Your task to perform on an android device: Open Youtube and go to the subscriptions tab Image 0: 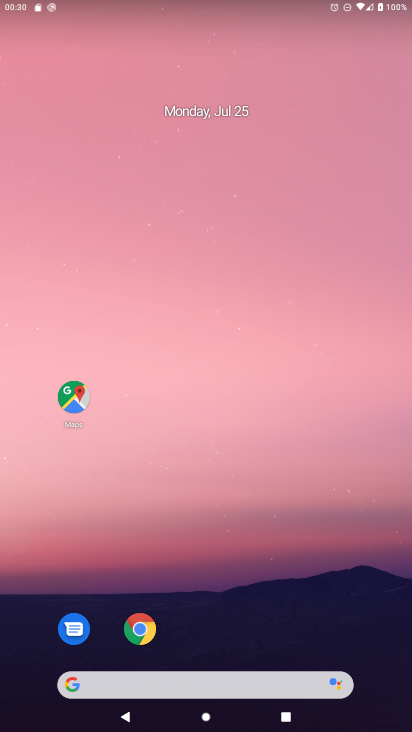
Step 0: drag from (174, 640) to (187, 18)
Your task to perform on an android device: Open Youtube and go to the subscriptions tab Image 1: 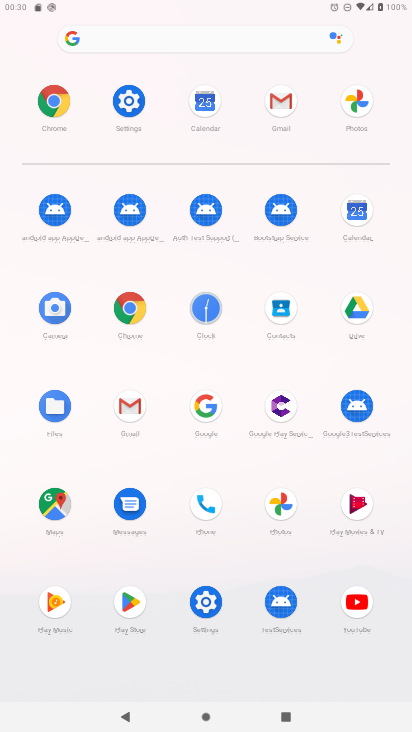
Step 1: click (347, 609)
Your task to perform on an android device: Open Youtube and go to the subscriptions tab Image 2: 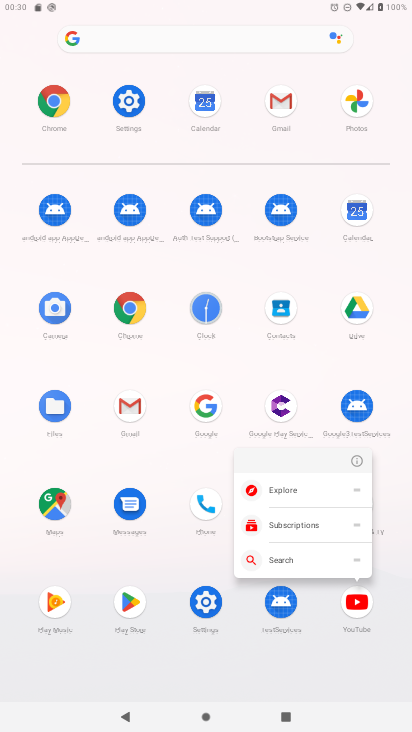
Step 2: click (360, 460)
Your task to perform on an android device: Open Youtube and go to the subscriptions tab Image 3: 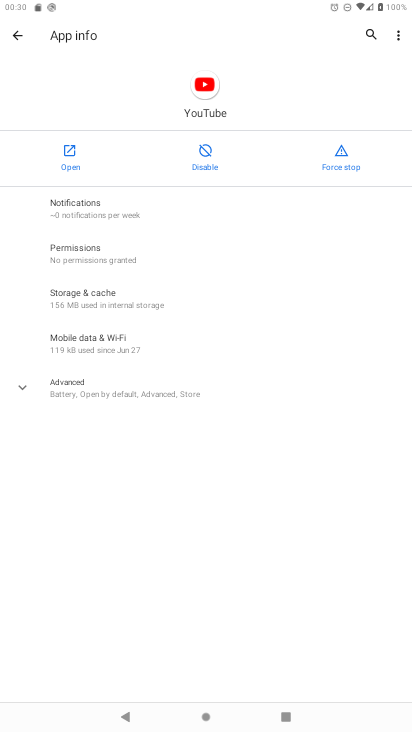
Step 3: click (71, 161)
Your task to perform on an android device: Open Youtube and go to the subscriptions tab Image 4: 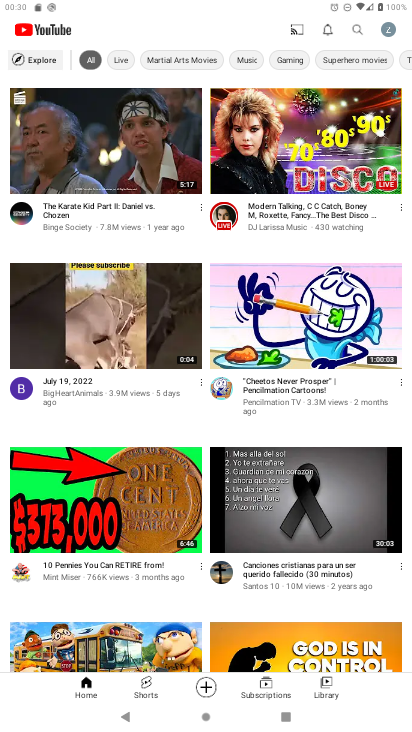
Step 4: click (258, 686)
Your task to perform on an android device: Open Youtube and go to the subscriptions tab Image 5: 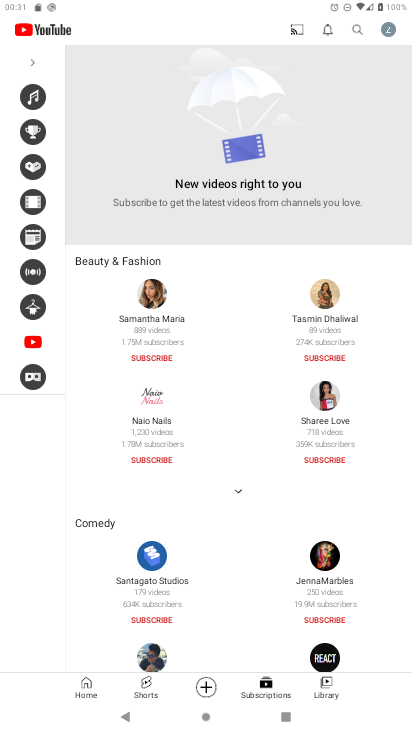
Step 5: task complete